Your task to perform on an android device: Open Google Chrome Image 0: 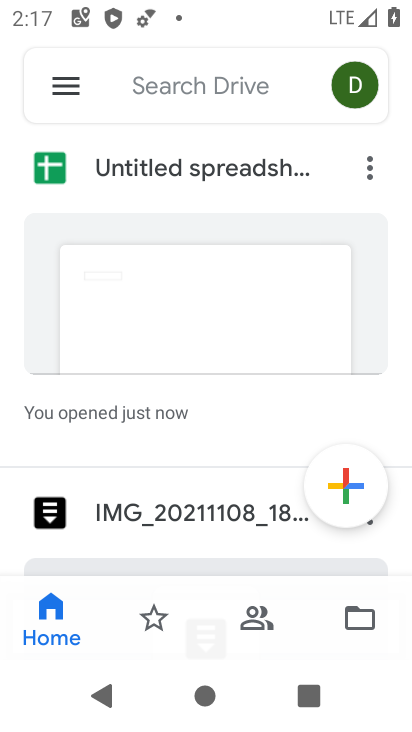
Step 0: press home button
Your task to perform on an android device: Open Google Chrome Image 1: 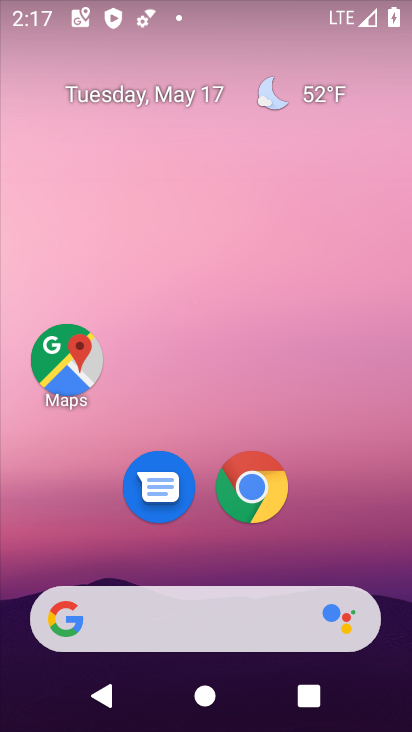
Step 1: click (246, 490)
Your task to perform on an android device: Open Google Chrome Image 2: 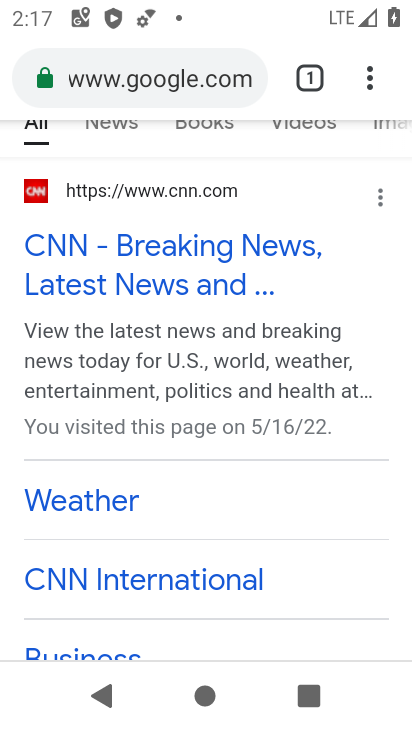
Step 2: task complete